Your task to perform on an android device: star an email in the gmail app Image 0: 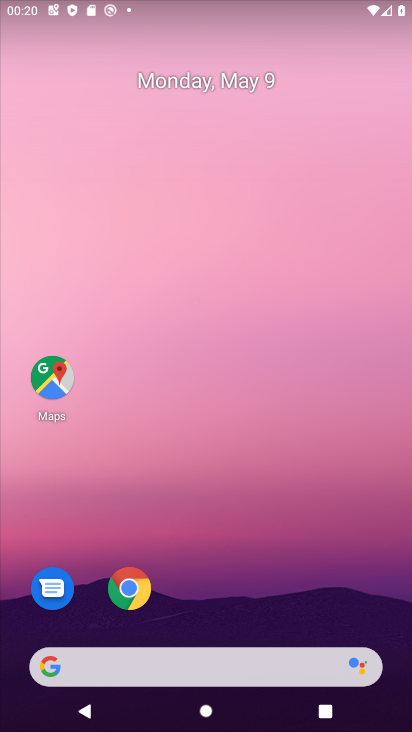
Step 0: drag from (213, 605) to (180, 18)
Your task to perform on an android device: star an email in the gmail app Image 1: 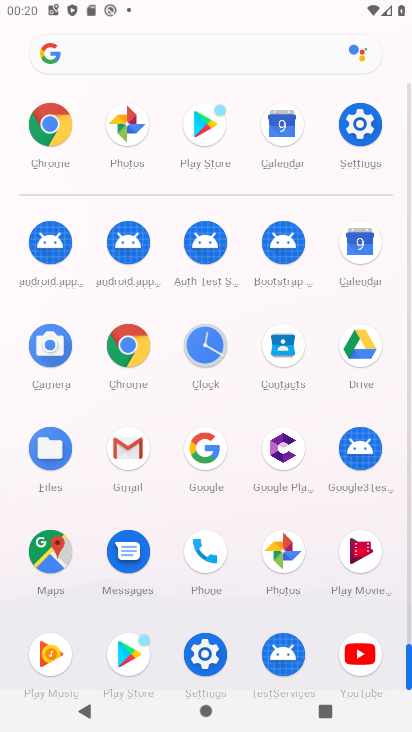
Step 1: click (125, 457)
Your task to perform on an android device: star an email in the gmail app Image 2: 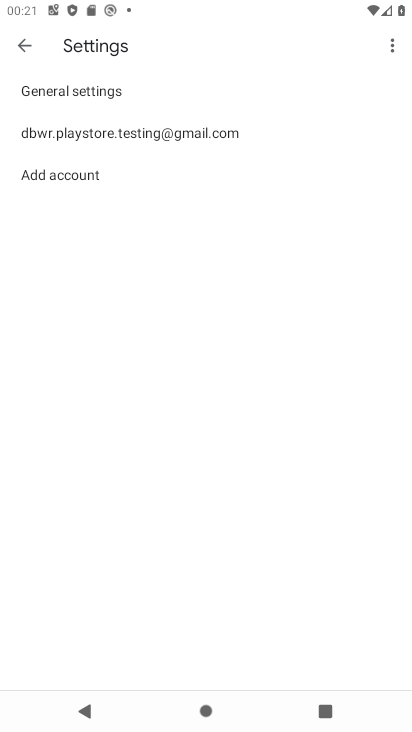
Step 2: click (21, 39)
Your task to perform on an android device: star an email in the gmail app Image 3: 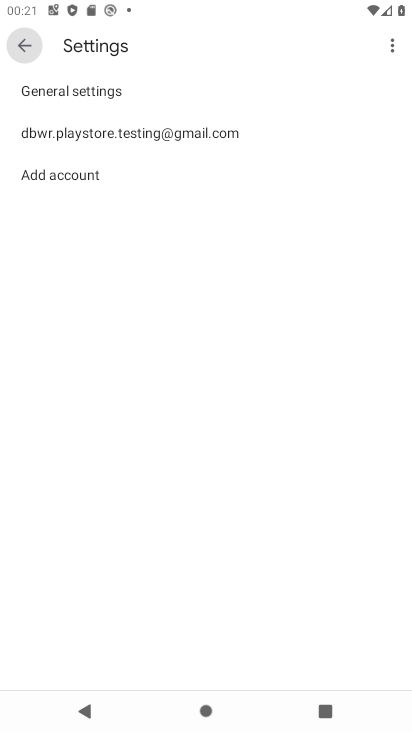
Step 3: click (25, 38)
Your task to perform on an android device: star an email in the gmail app Image 4: 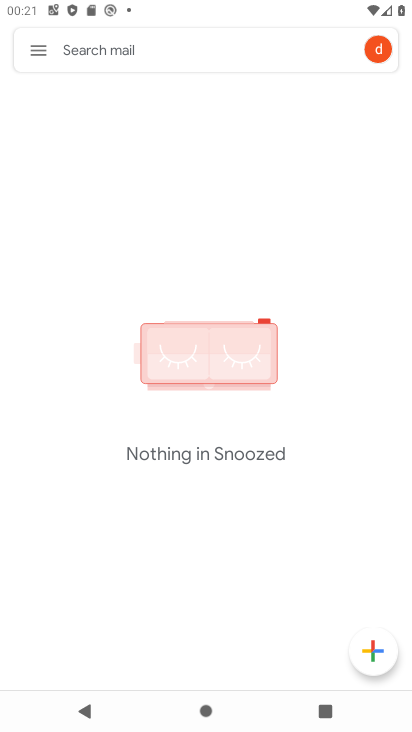
Step 4: click (34, 43)
Your task to perform on an android device: star an email in the gmail app Image 5: 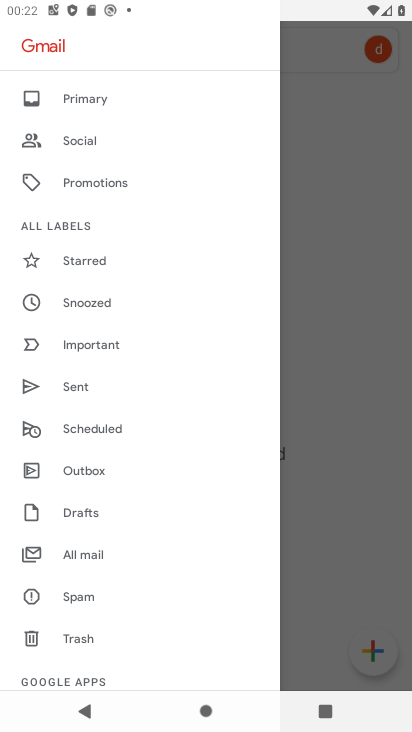
Step 5: click (69, 553)
Your task to perform on an android device: star an email in the gmail app Image 6: 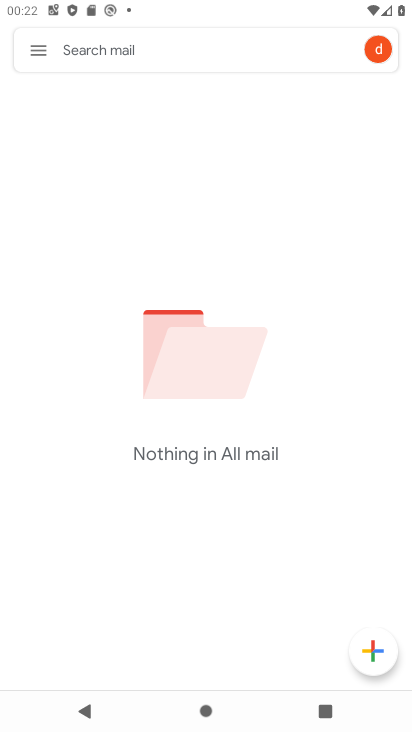
Step 6: task complete